Your task to perform on an android device: see tabs open on other devices in the chrome app Image 0: 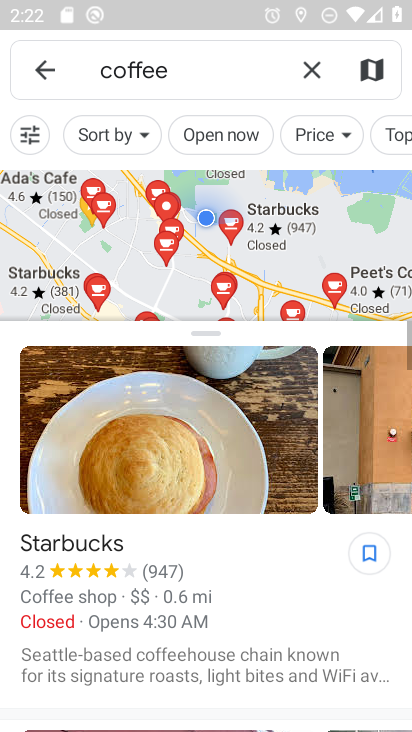
Step 0: click (340, 453)
Your task to perform on an android device: see tabs open on other devices in the chrome app Image 1: 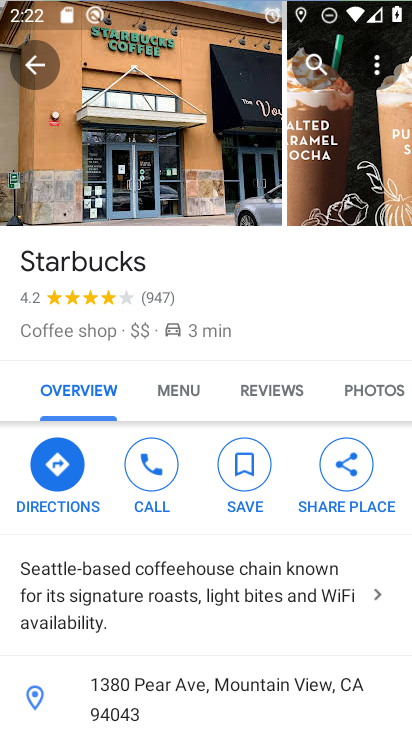
Step 1: press home button
Your task to perform on an android device: see tabs open on other devices in the chrome app Image 2: 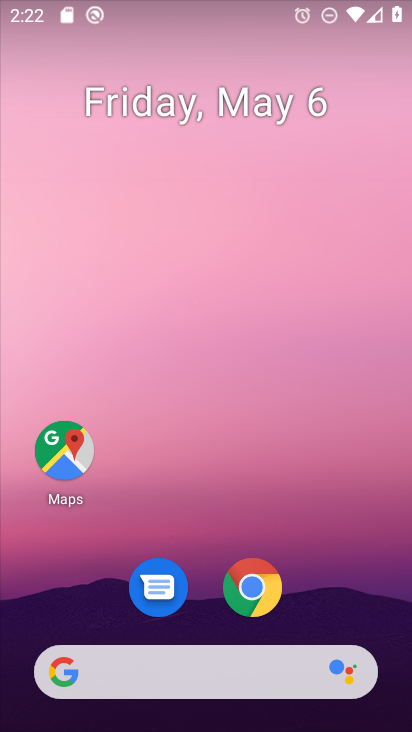
Step 2: click (238, 590)
Your task to perform on an android device: see tabs open on other devices in the chrome app Image 3: 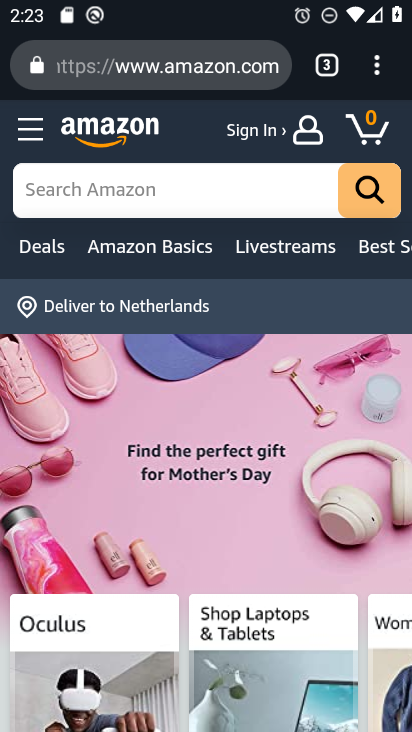
Step 3: task complete